Your task to perform on an android device: Go to Yahoo.com Image 0: 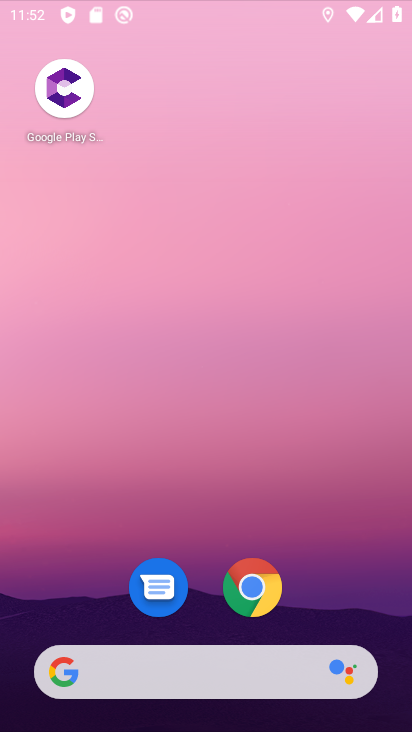
Step 0: press home button
Your task to perform on an android device: Go to Yahoo.com Image 1: 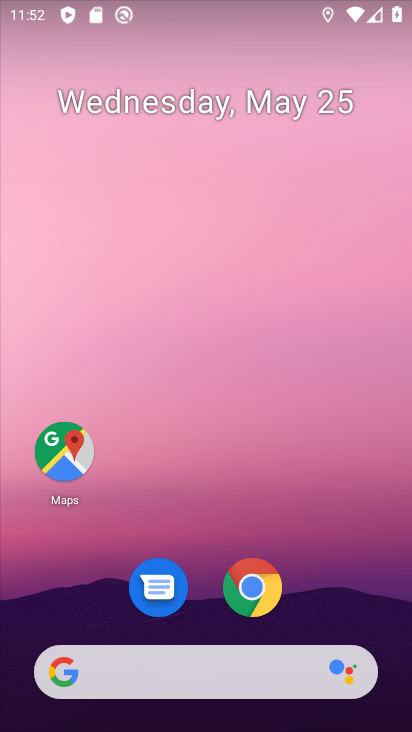
Step 1: click (249, 584)
Your task to perform on an android device: Go to Yahoo.com Image 2: 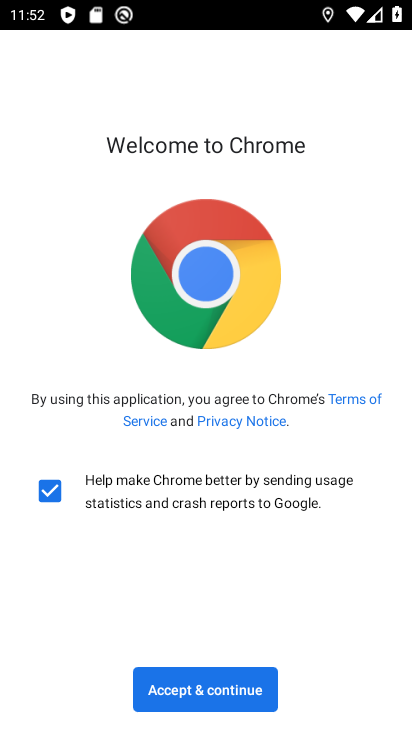
Step 2: click (201, 685)
Your task to perform on an android device: Go to Yahoo.com Image 3: 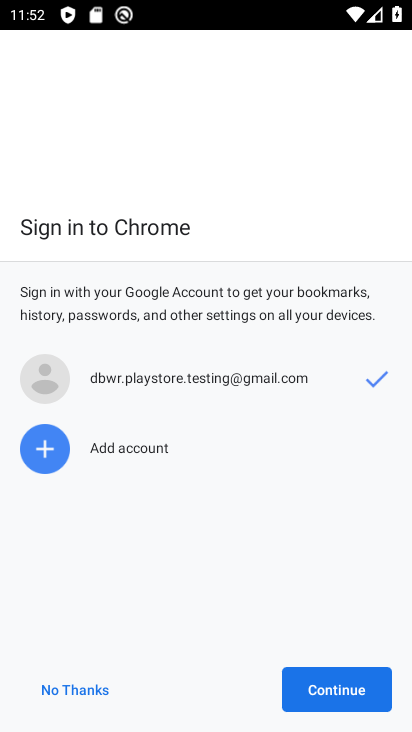
Step 3: click (335, 690)
Your task to perform on an android device: Go to Yahoo.com Image 4: 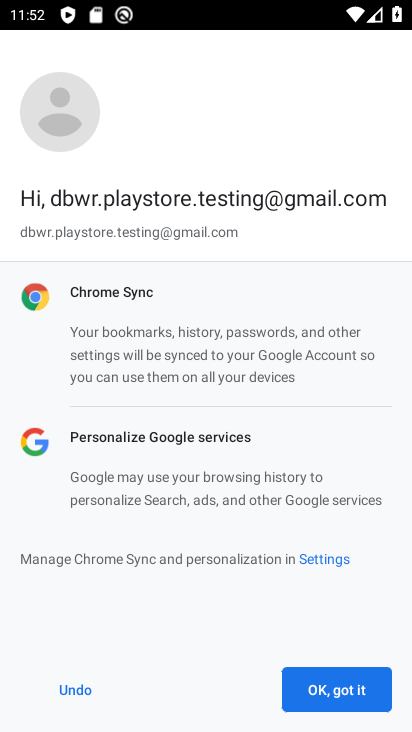
Step 4: click (333, 690)
Your task to perform on an android device: Go to Yahoo.com Image 5: 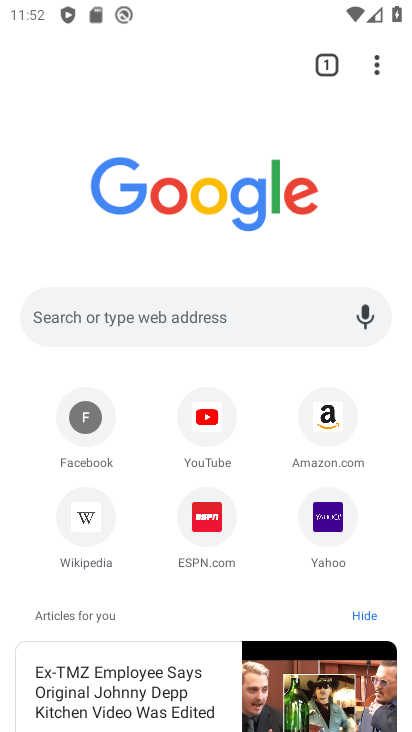
Step 5: click (326, 511)
Your task to perform on an android device: Go to Yahoo.com Image 6: 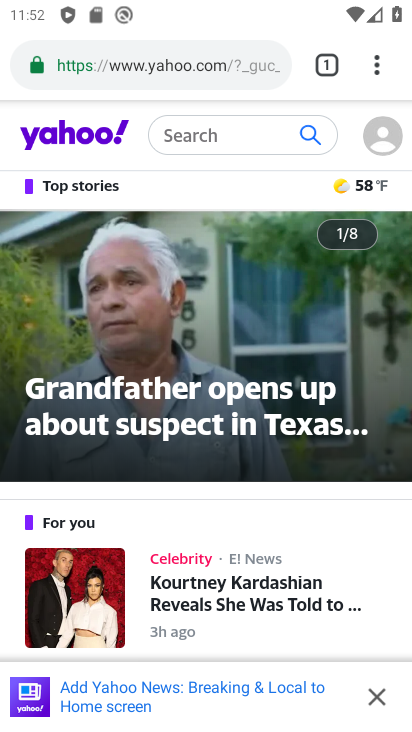
Step 6: click (376, 696)
Your task to perform on an android device: Go to Yahoo.com Image 7: 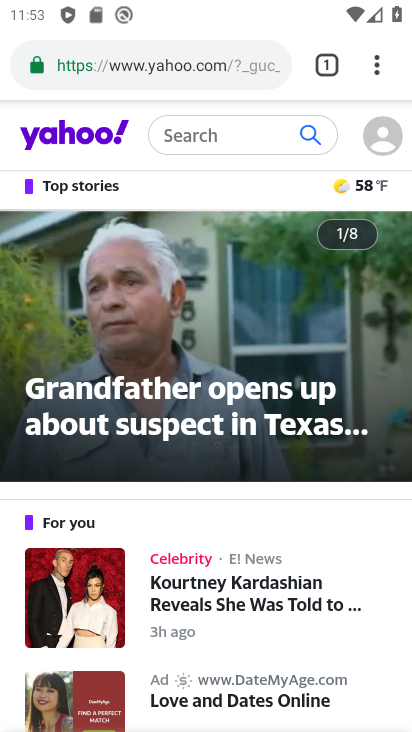
Step 7: task complete